Your task to perform on an android device: toggle data saver in the chrome app Image 0: 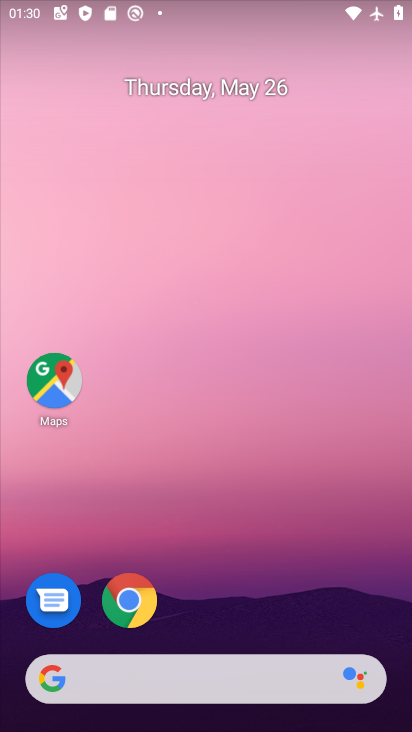
Step 0: click (131, 596)
Your task to perform on an android device: toggle data saver in the chrome app Image 1: 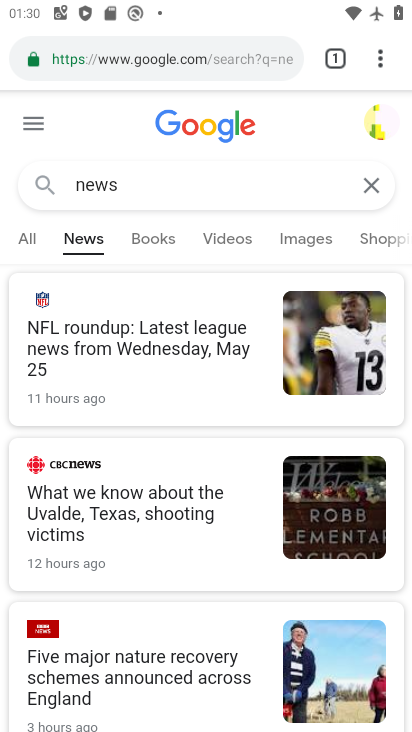
Step 1: drag from (379, 62) to (179, 653)
Your task to perform on an android device: toggle data saver in the chrome app Image 2: 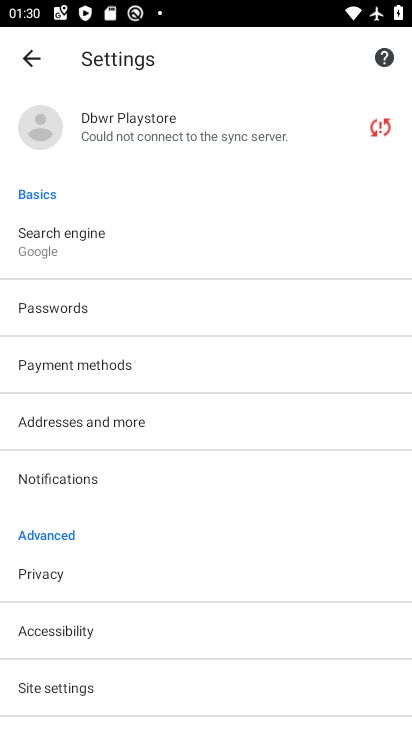
Step 2: drag from (166, 576) to (267, 185)
Your task to perform on an android device: toggle data saver in the chrome app Image 3: 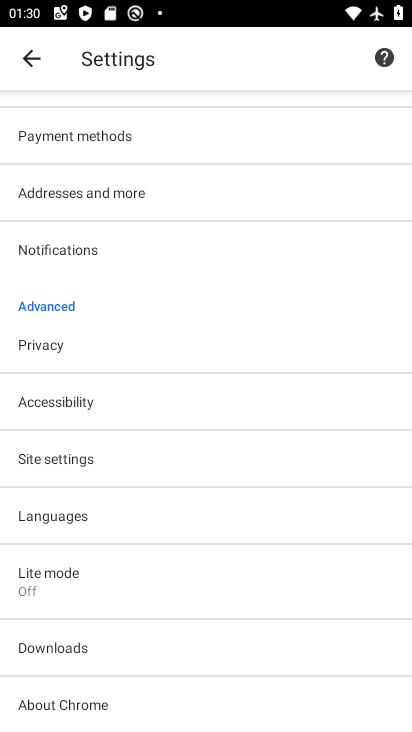
Step 3: click (83, 576)
Your task to perform on an android device: toggle data saver in the chrome app Image 4: 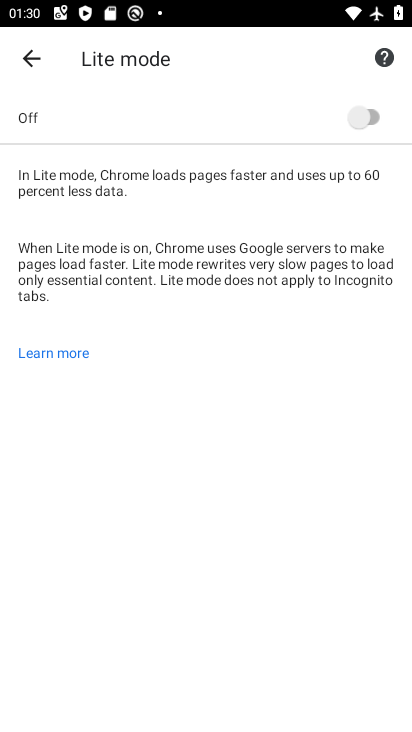
Step 4: click (343, 97)
Your task to perform on an android device: toggle data saver in the chrome app Image 5: 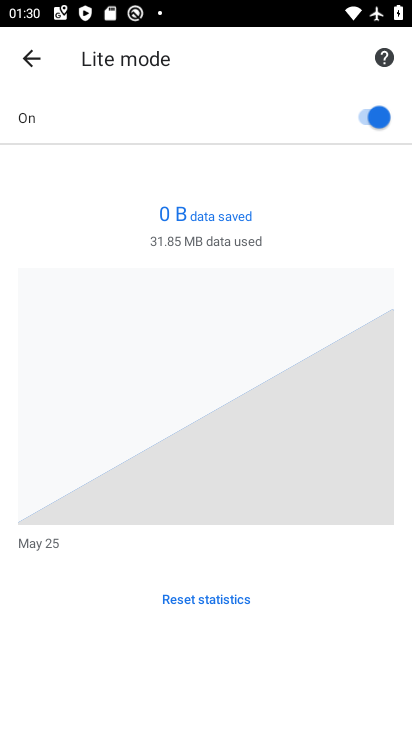
Step 5: task complete